Your task to perform on an android device: Open ESPN.com Image 0: 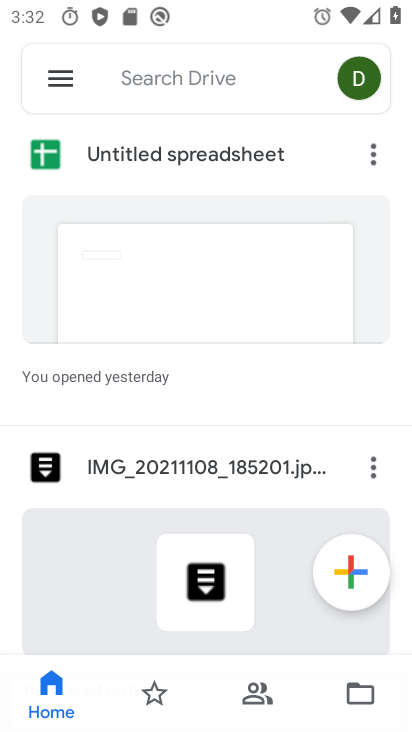
Step 0: press home button
Your task to perform on an android device: Open ESPN.com Image 1: 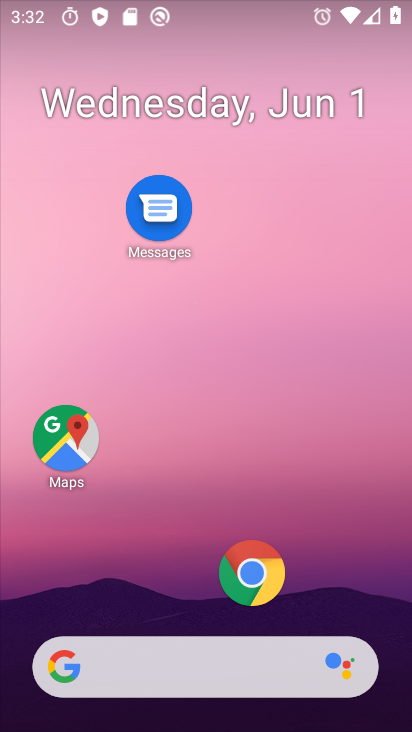
Step 1: click (249, 588)
Your task to perform on an android device: Open ESPN.com Image 2: 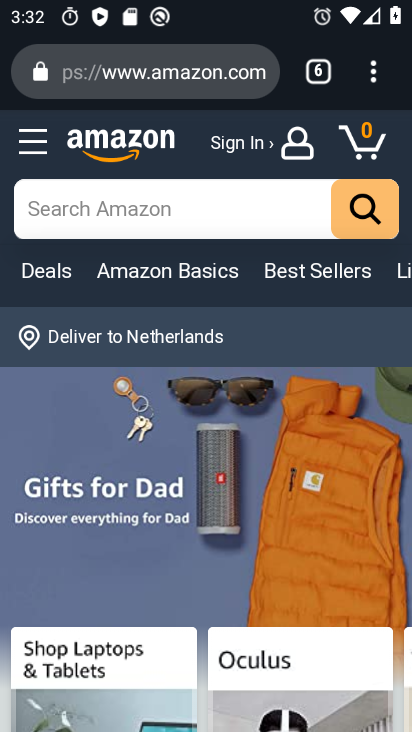
Step 2: click (326, 80)
Your task to perform on an android device: Open ESPN.com Image 3: 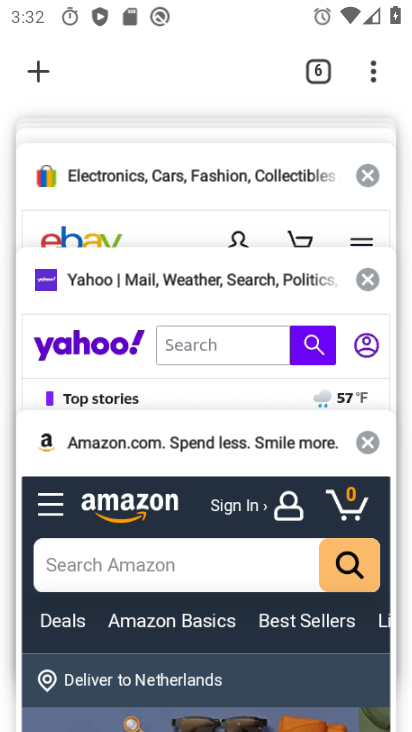
Step 3: click (41, 71)
Your task to perform on an android device: Open ESPN.com Image 4: 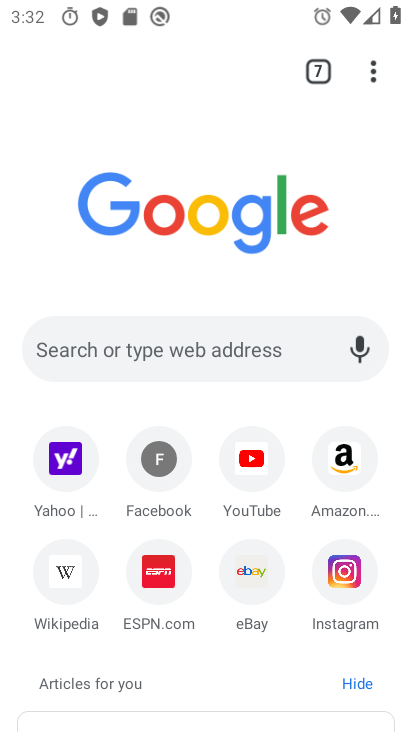
Step 4: click (151, 581)
Your task to perform on an android device: Open ESPN.com Image 5: 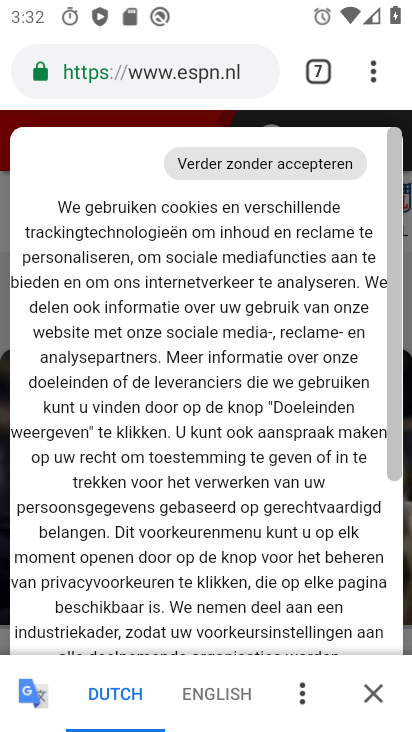
Step 5: task complete